Your task to perform on an android device: toggle location history Image 0: 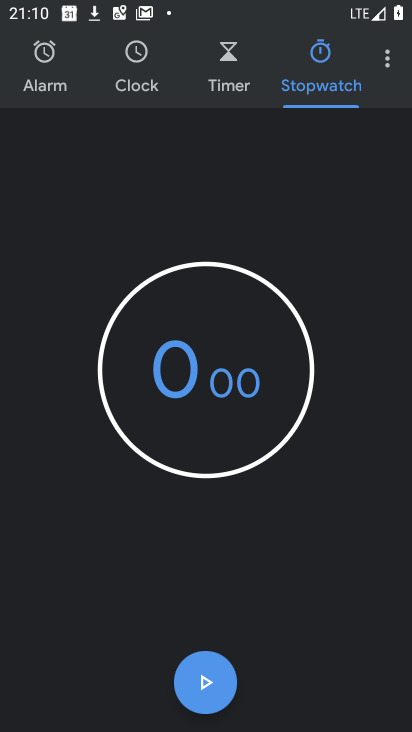
Step 0: press home button
Your task to perform on an android device: toggle location history Image 1: 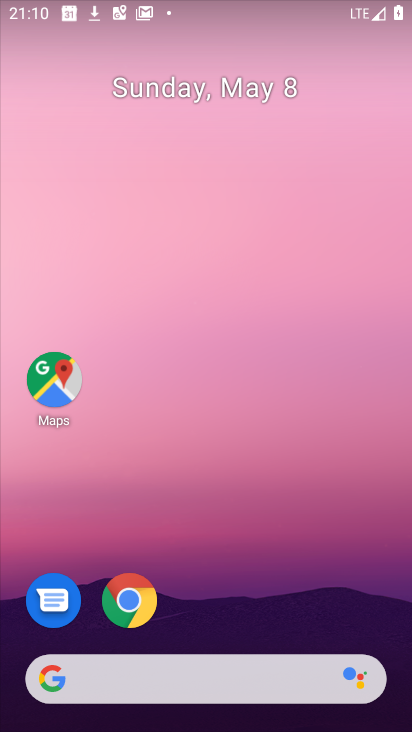
Step 1: drag from (265, 703) to (318, 270)
Your task to perform on an android device: toggle location history Image 2: 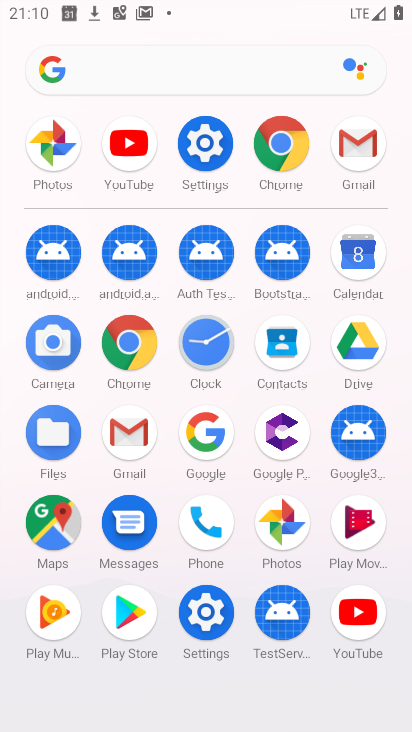
Step 2: click (216, 607)
Your task to perform on an android device: toggle location history Image 3: 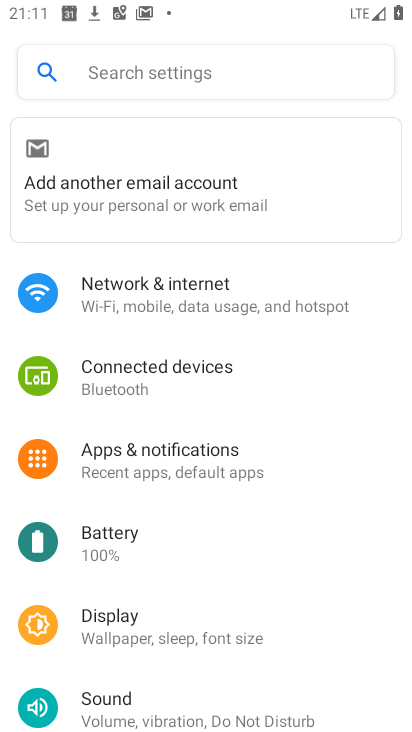
Step 3: click (168, 62)
Your task to perform on an android device: toggle location history Image 4: 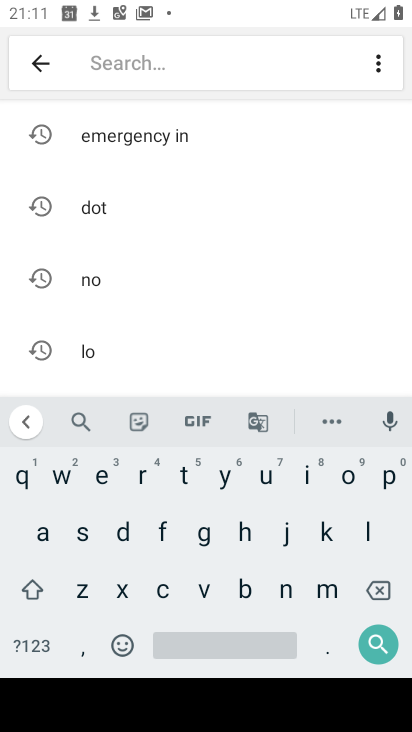
Step 4: click (98, 356)
Your task to perform on an android device: toggle location history Image 5: 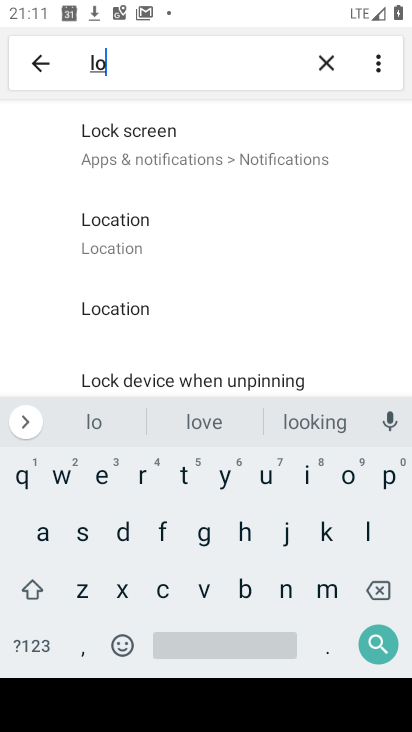
Step 5: click (128, 239)
Your task to perform on an android device: toggle location history Image 6: 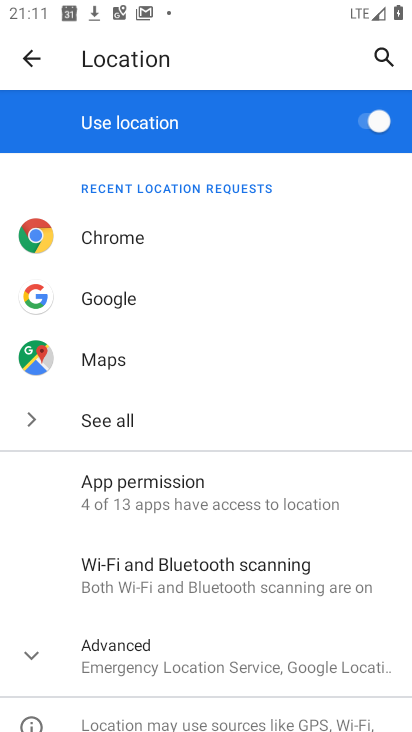
Step 6: click (122, 651)
Your task to perform on an android device: toggle location history Image 7: 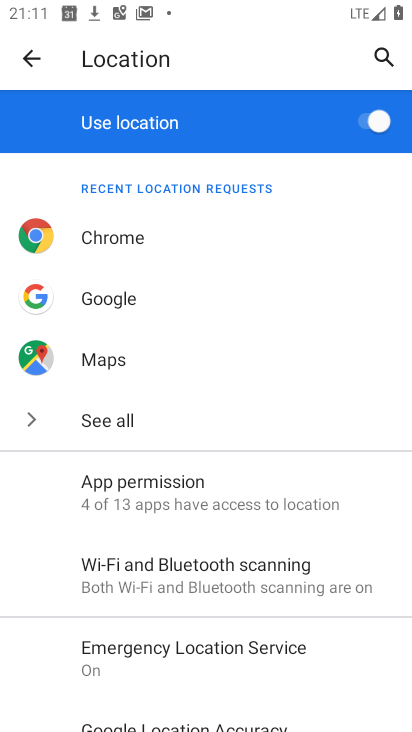
Step 7: drag from (144, 628) to (175, 400)
Your task to perform on an android device: toggle location history Image 8: 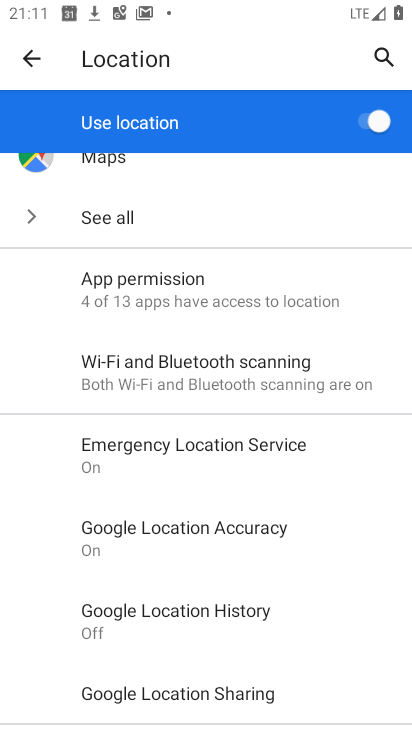
Step 8: click (155, 621)
Your task to perform on an android device: toggle location history Image 9: 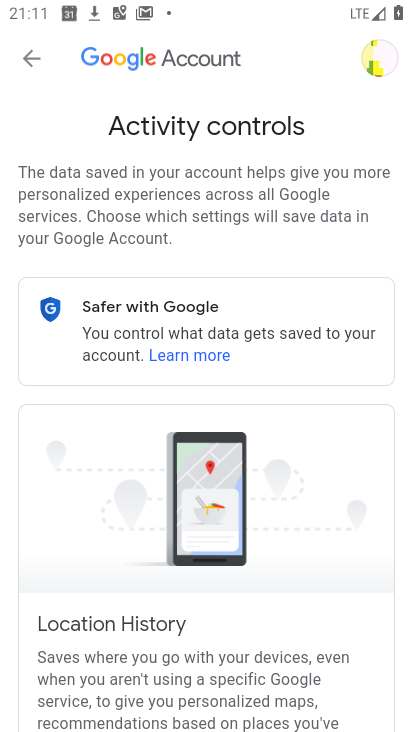
Step 9: task complete